Your task to perform on an android device: change the clock display to digital Image 0: 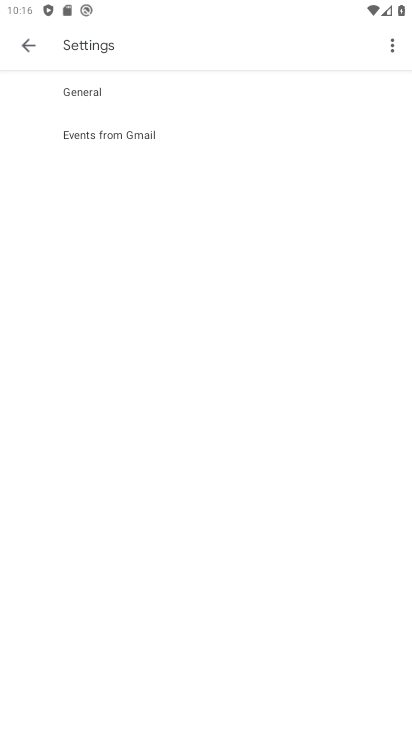
Step 0: press home button
Your task to perform on an android device: change the clock display to digital Image 1: 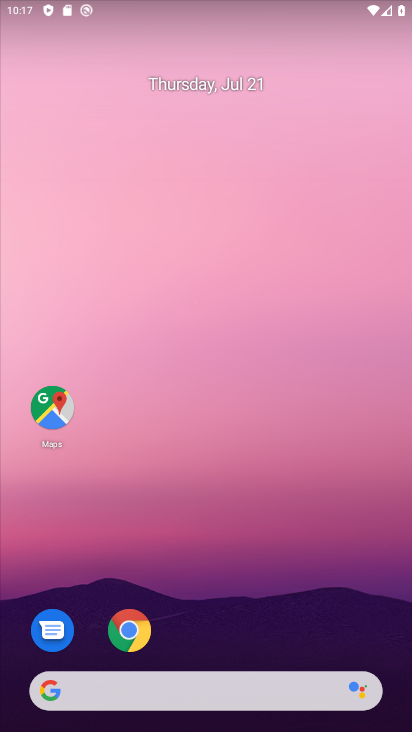
Step 1: drag from (236, 656) to (203, 129)
Your task to perform on an android device: change the clock display to digital Image 2: 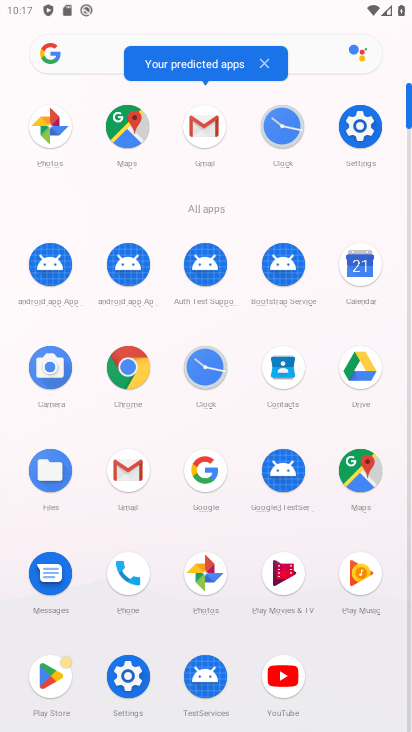
Step 2: click (286, 130)
Your task to perform on an android device: change the clock display to digital Image 3: 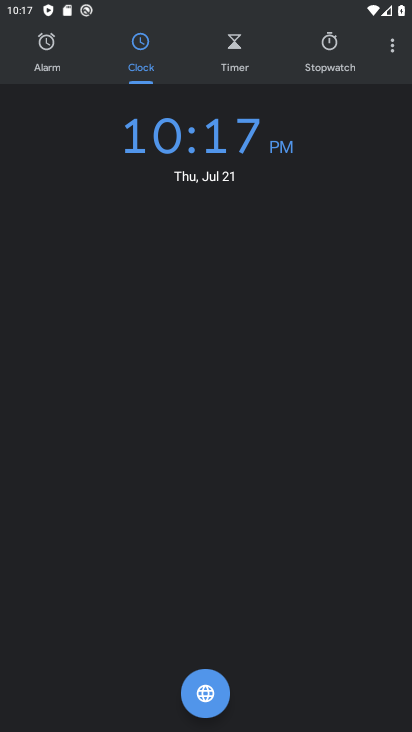
Step 3: click (389, 59)
Your task to perform on an android device: change the clock display to digital Image 4: 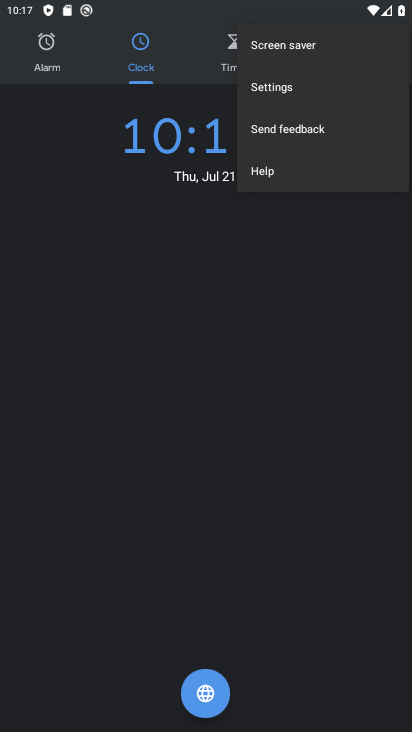
Step 4: click (352, 90)
Your task to perform on an android device: change the clock display to digital Image 5: 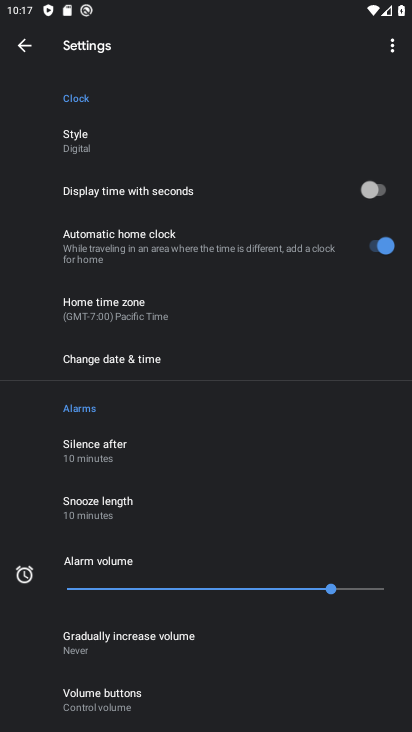
Step 5: click (123, 149)
Your task to perform on an android device: change the clock display to digital Image 6: 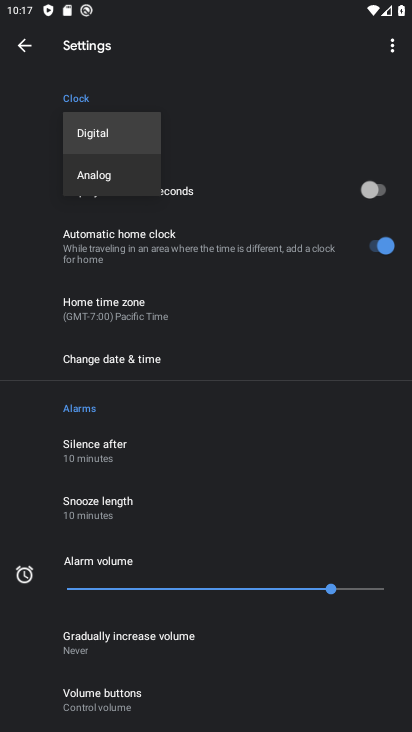
Step 6: click (123, 144)
Your task to perform on an android device: change the clock display to digital Image 7: 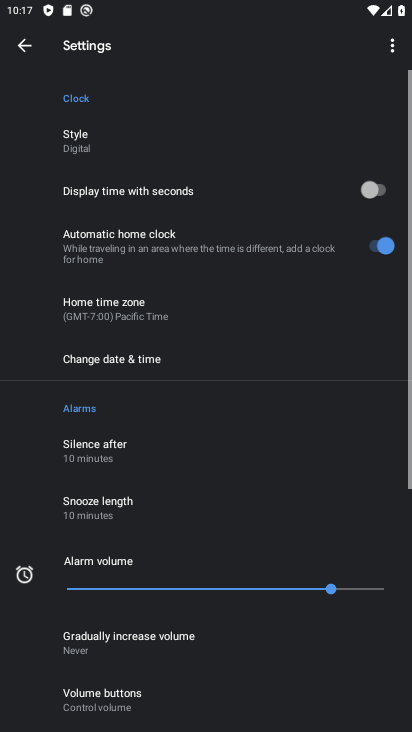
Step 7: task complete